Your task to perform on an android device: Do I have any events today? Image 0: 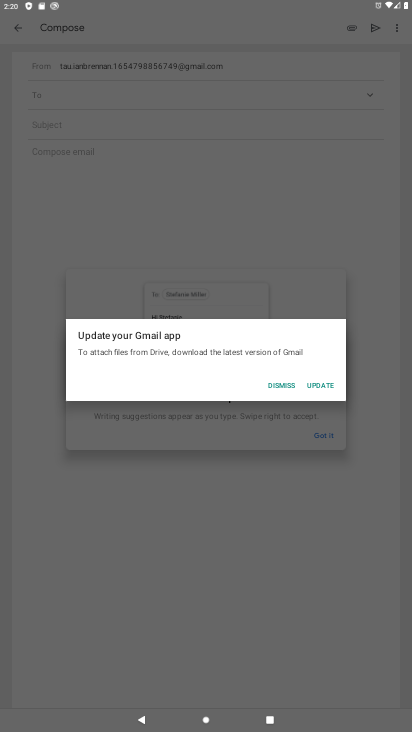
Step 0: press home button
Your task to perform on an android device: Do I have any events today? Image 1: 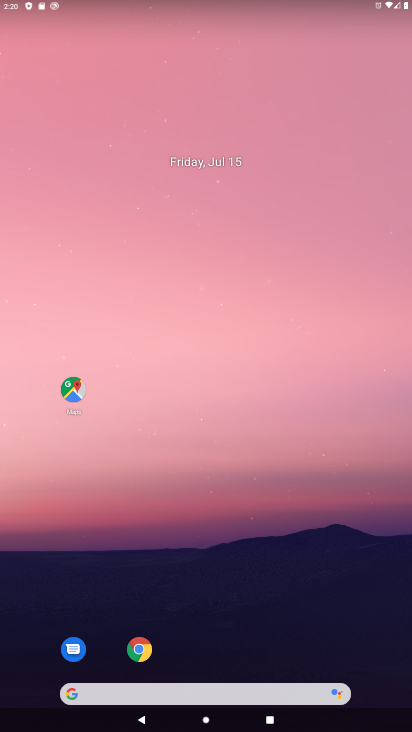
Step 1: click (201, 163)
Your task to perform on an android device: Do I have any events today? Image 2: 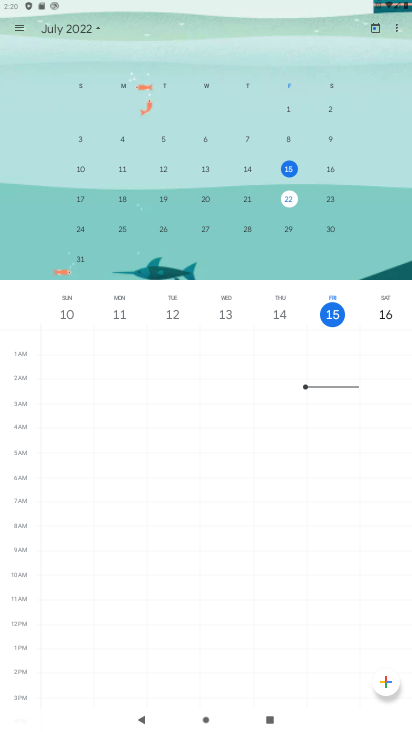
Step 2: click (288, 165)
Your task to perform on an android device: Do I have any events today? Image 3: 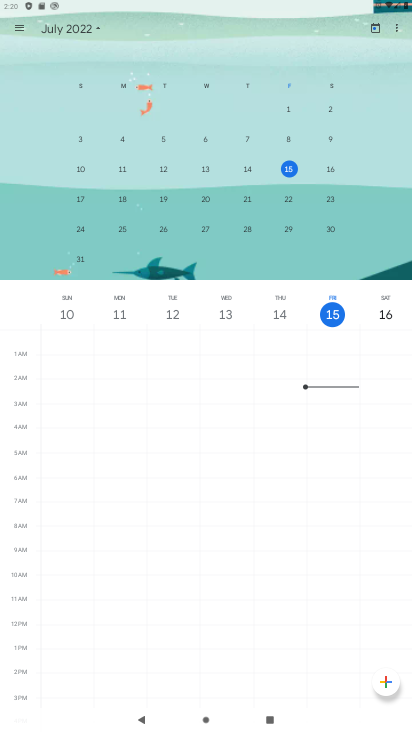
Step 3: task complete